Your task to perform on an android device: Open Wikipedia Image 0: 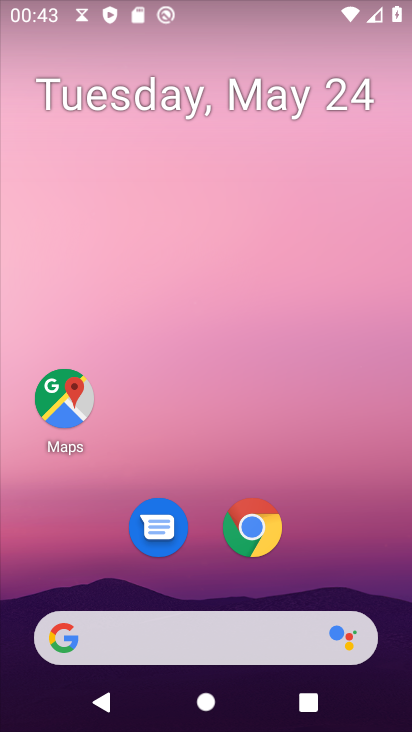
Step 0: press home button
Your task to perform on an android device: Open Wikipedia Image 1: 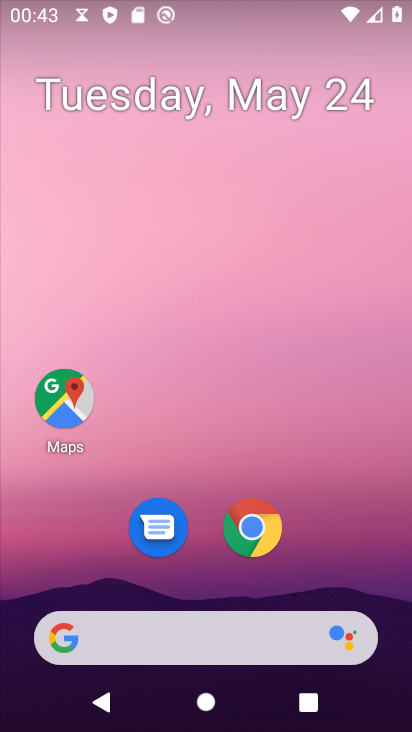
Step 1: click (257, 523)
Your task to perform on an android device: Open Wikipedia Image 2: 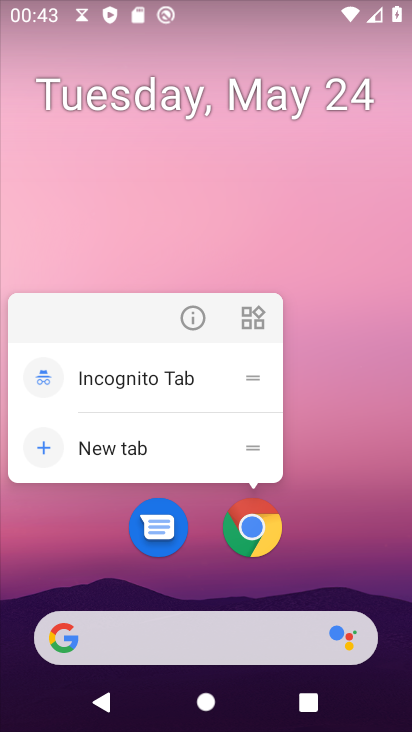
Step 2: click (253, 530)
Your task to perform on an android device: Open Wikipedia Image 3: 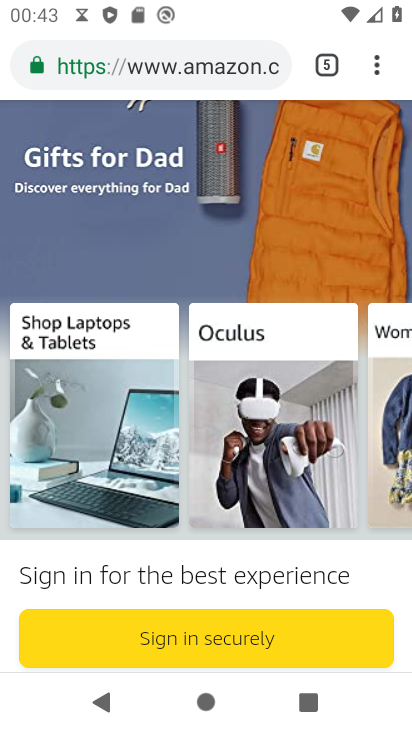
Step 3: drag from (376, 63) to (221, 122)
Your task to perform on an android device: Open Wikipedia Image 4: 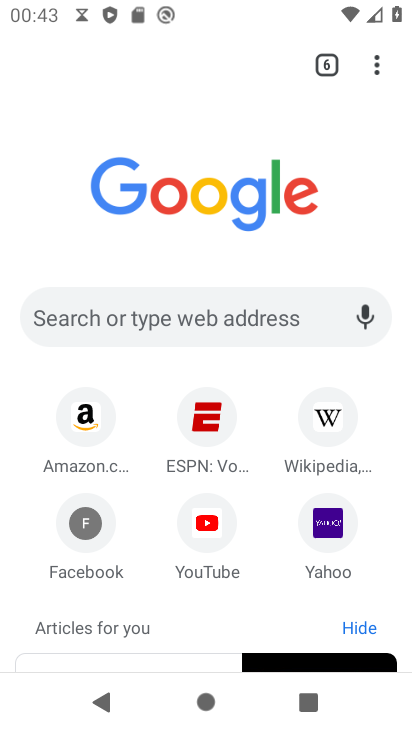
Step 4: click (330, 418)
Your task to perform on an android device: Open Wikipedia Image 5: 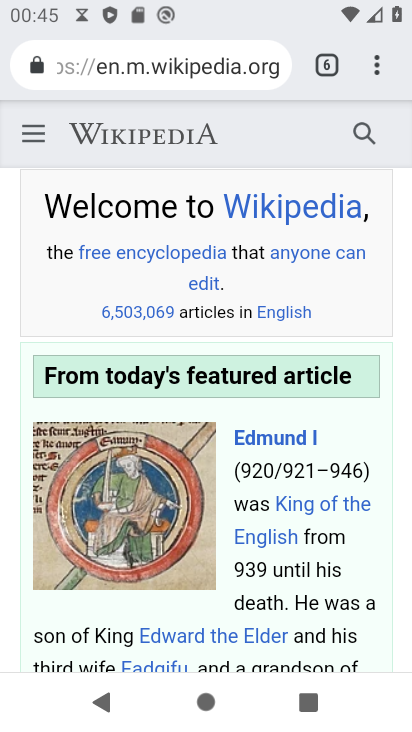
Step 5: task complete